Your task to perform on an android device: Go to display settings Image 0: 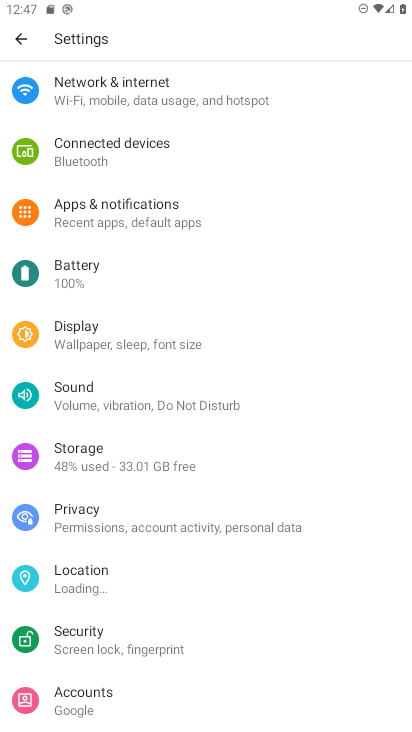
Step 0: click (119, 345)
Your task to perform on an android device: Go to display settings Image 1: 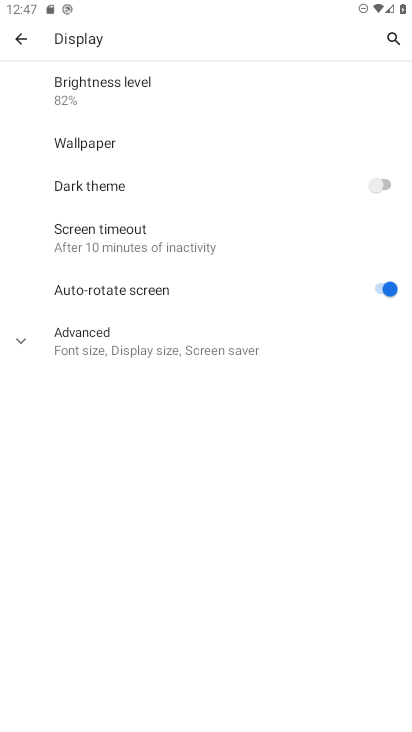
Step 1: task complete